Your task to perform on an android device: Search for Mexican restaurants on Maps Image 0: 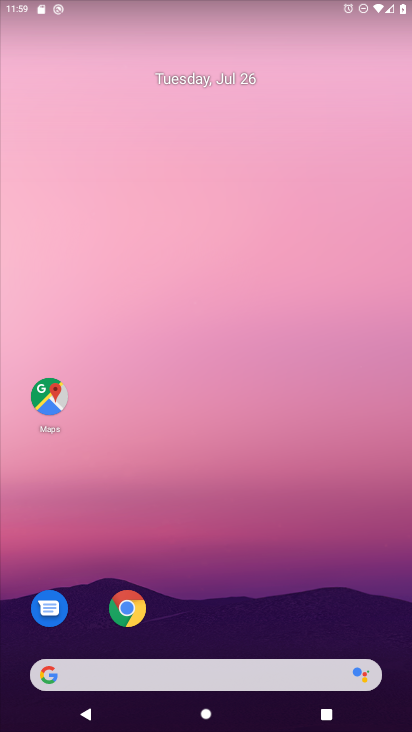
Step 0: drag from (299, 651) to (258, 137)
Your task to perform on an android device: Search for Mexican restaurants on Maps Image 1: 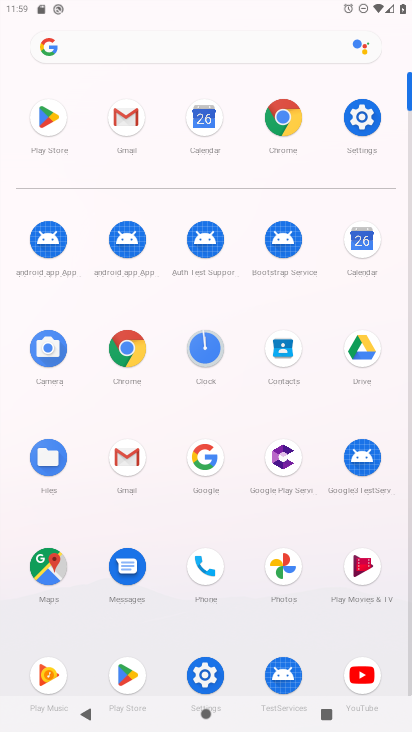
Step 1: click (54, 574)
Your task to perform on an android device: Search for Mexican restaurants on Maps Image 2: 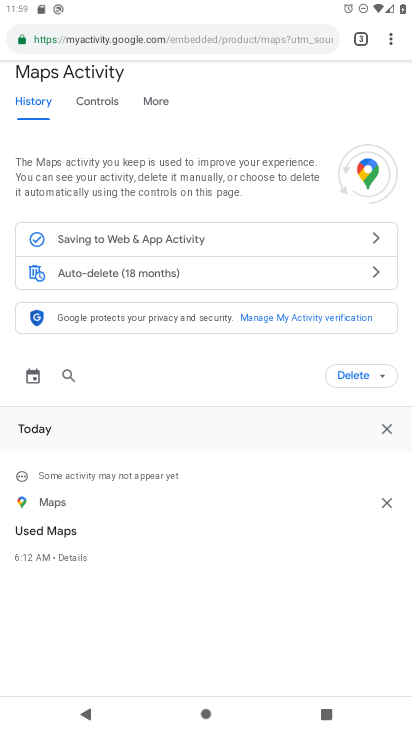
Step 2: press home button
Your task to perform on an android device: Search for Mexican restaurants on Maps Image 3: 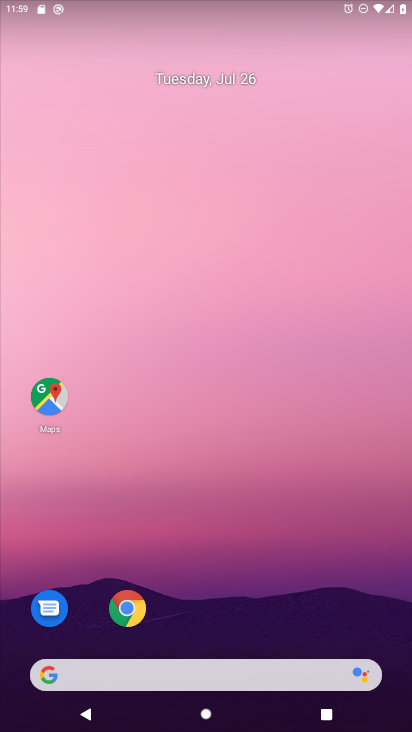
Step 3: drag from (274, 605) to (272, 32)
Your task to perform on an android device: Search for Mexican restaurants on Maps Image 4: 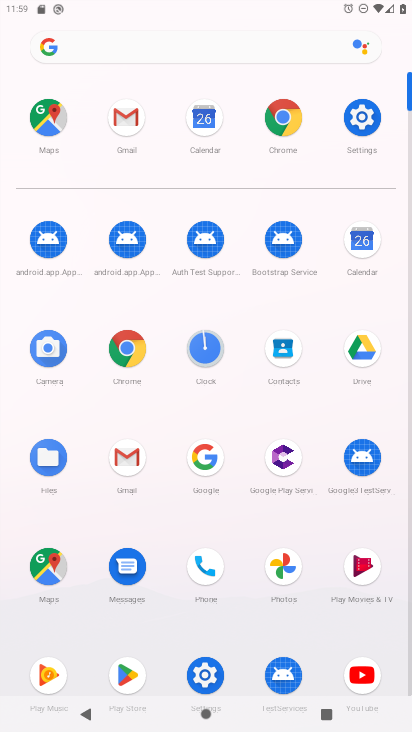
Step 4: click (43, 117)
Your task to perform on an android device: Search for Mexican restaurants on Maps Image 5: 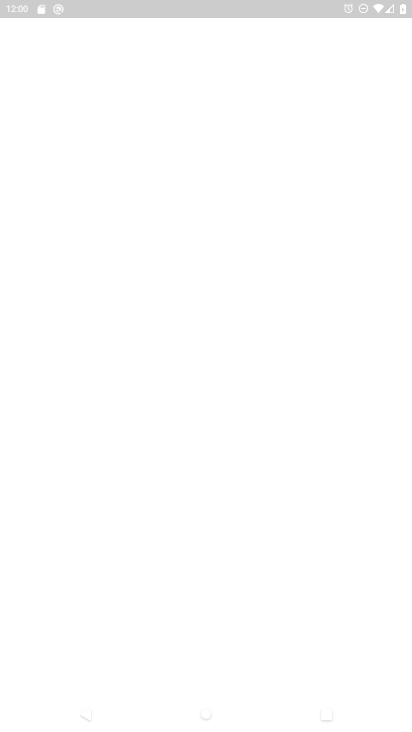
Step 5: task complete